Your task to perform on an android device: clear all cookies in the chrome app Image 0: 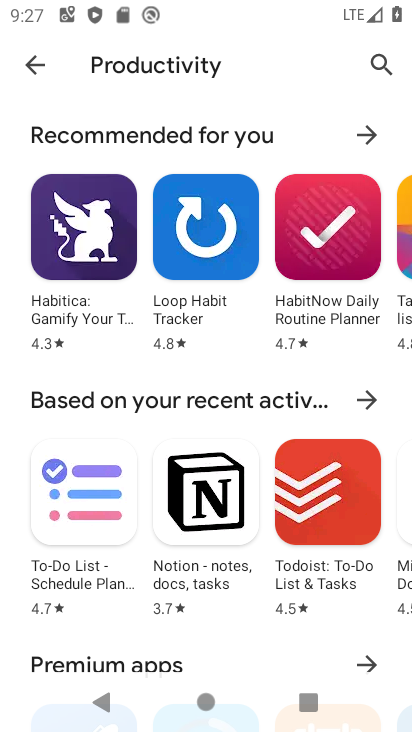
Step 0: press home button
Your task to perform on an android device: clear all cookies in the chrome app Image 1: 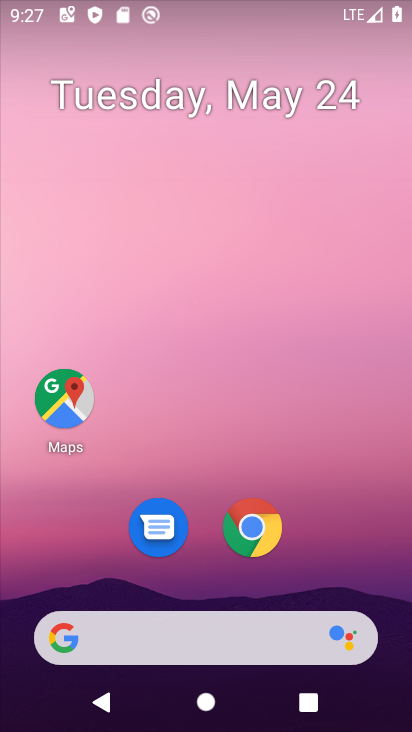
Step 1: click (260, 537)
Your task to perform on an android device: clear all cookies in the chrome app Image 2: 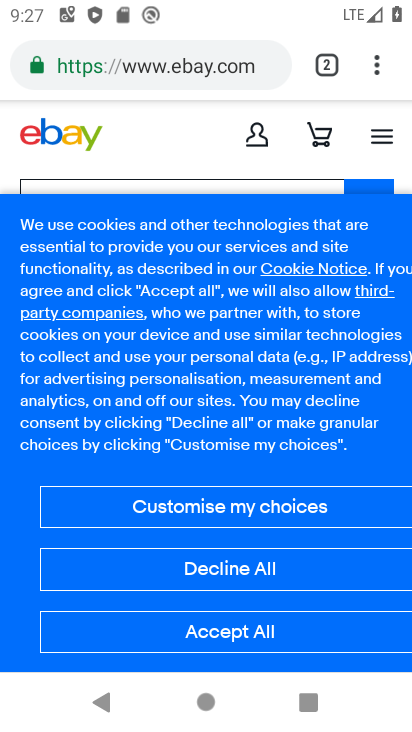
Step 2: click (371, 71)
Your task to perform on an android device: clear all cookies in the chrome app Image 3: 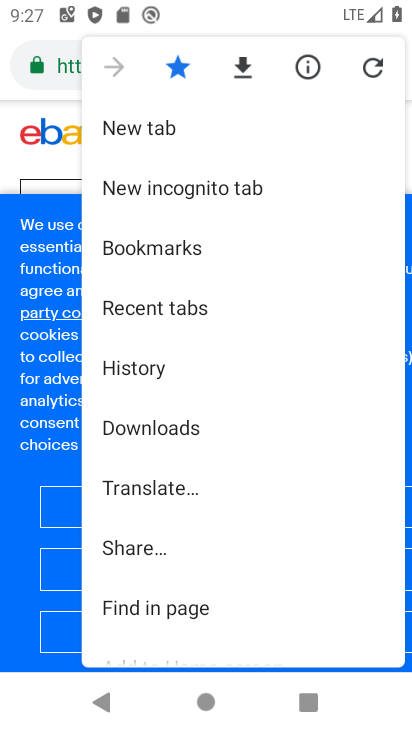
Step 3: click (168, 361)
Your task to perform on an android device: clear all cookies in the chrome app Image 4: 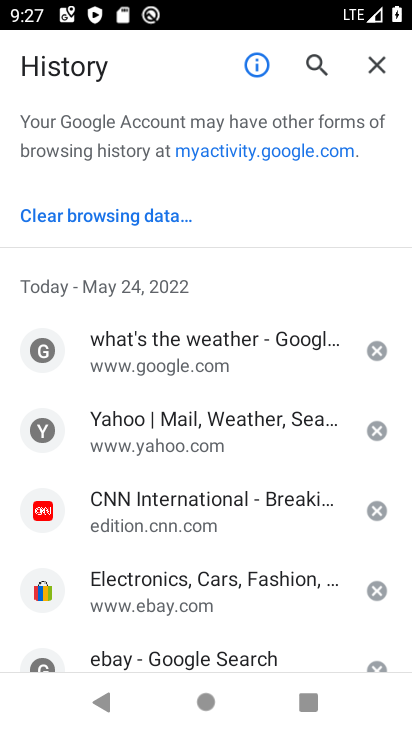
Step 4: click (98, 218)
Your task to perform on an android device: clear all cookies in the chrome app Image 5: 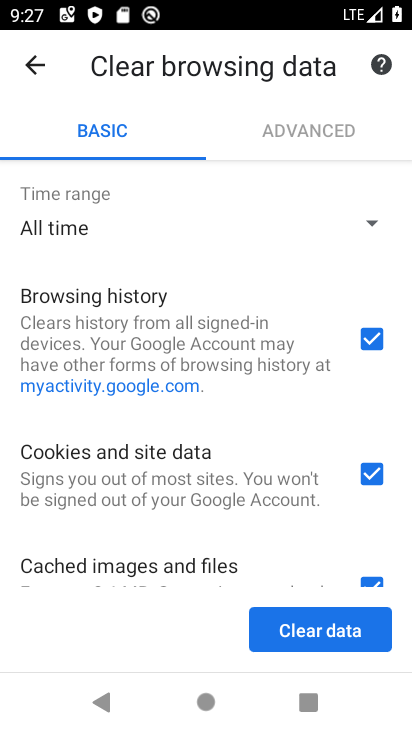
Step 5: drag from (279, 498) to (263, 244)
Your task to perform on an android device: clear all cookies in the chrome app Image 6: 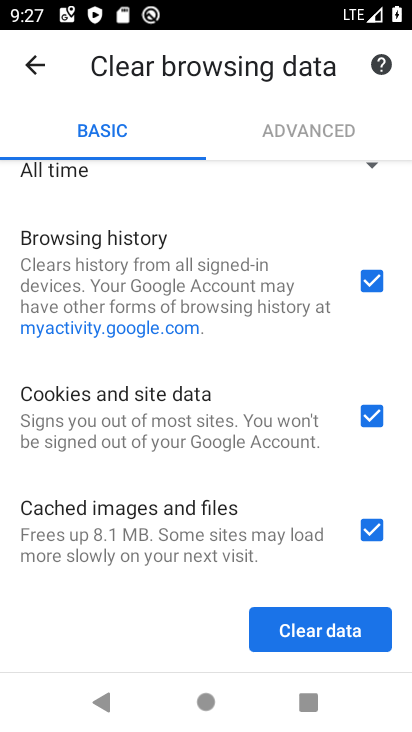
Step 6: click (293, 640)
Your task to perform on an android device: clear all cookies in the chrome app Image 7: 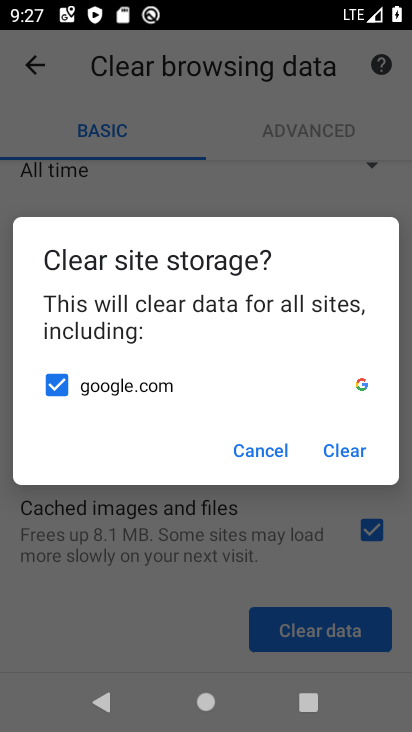
Step 7: click (335, 447)
Your task to perform on an android device: clear all cookies in the chrome app Image 8: 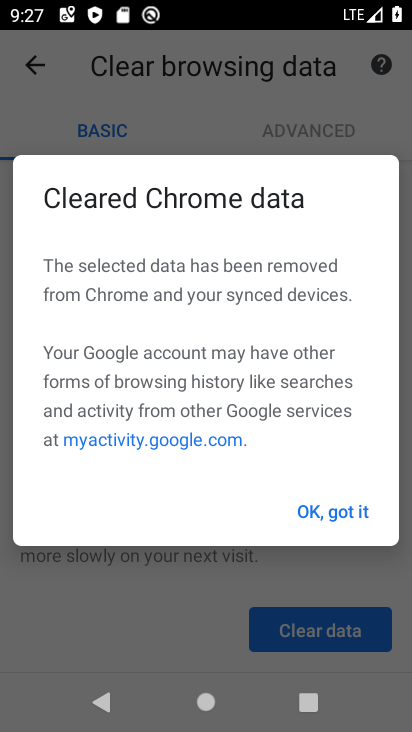
Step 8: task complete